Your task to perform on an android device: open device folders in google photos Image 0: 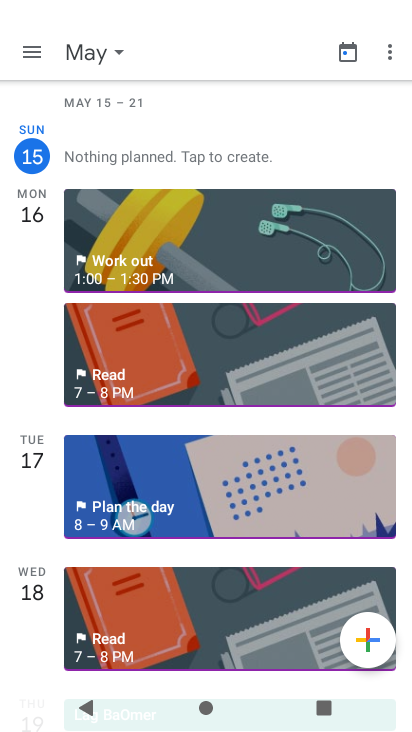
Step 0: press home button
Your task to perform on an android device: open device folders in google photos Image 1: 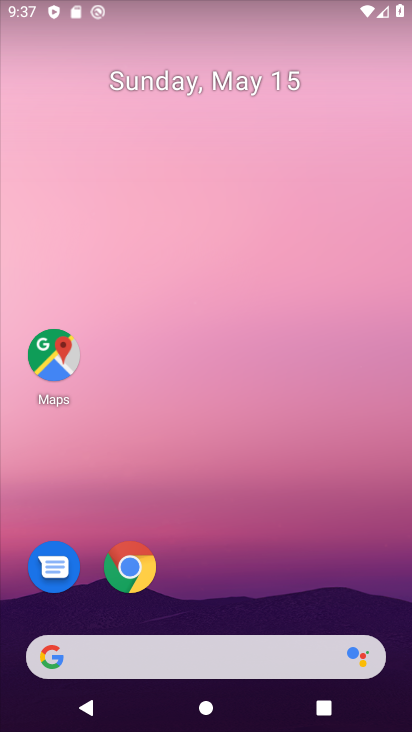
Step 1: drag from (270, 380) to (271, 108)
Your task to perform on an android device: open device folders in google photos Image 2: 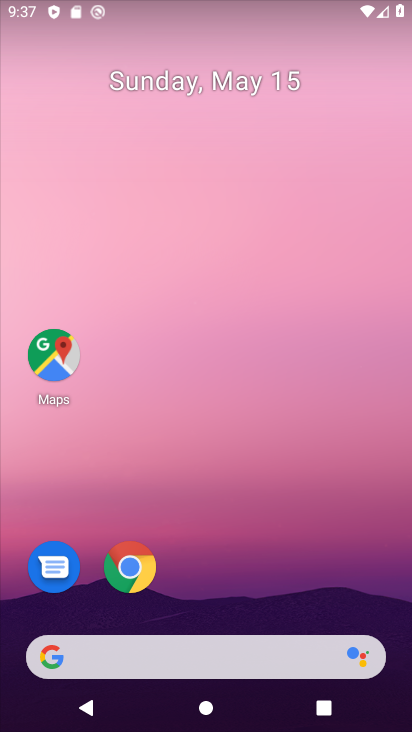
Step 2: drag from (240, 507) to (264, 91)
Your task to perform on an android device: open device folders in google photos Image 3: 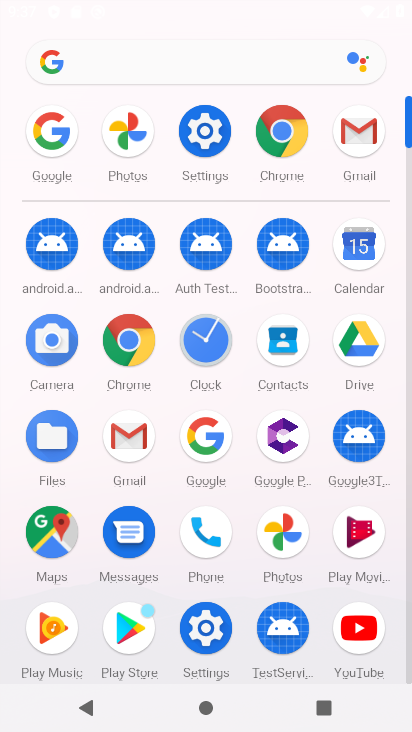
Step 3: click (132, 133)
Your task to perform on an android device: open device folders in google photos Image 4: 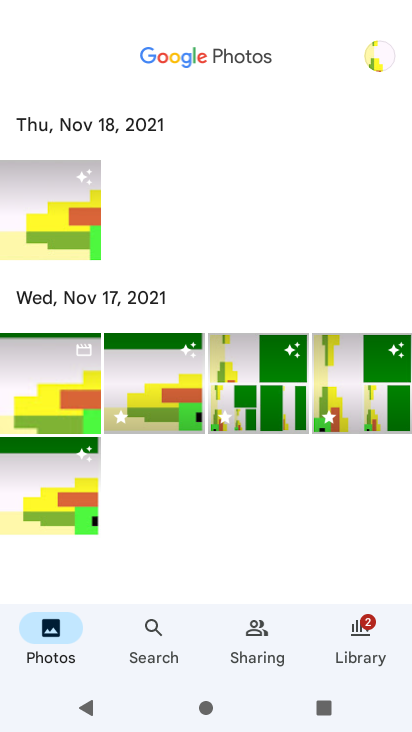
Step 4: click (379, 56)
Your task to perform on an android device: open device folders in google photos Image 5: 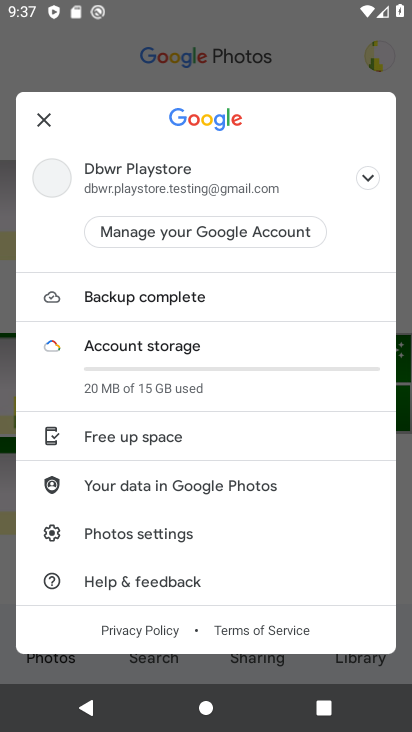
Step 5: click (168, 534)
Your task to perform on an android device: open device folders in google photos Image 6: 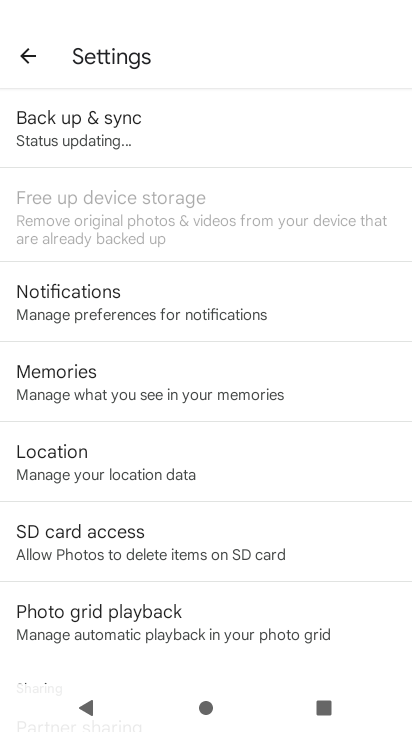
Step 6: task complete